Your task to perform on an android device: change the clock display to show seconds Image 0: 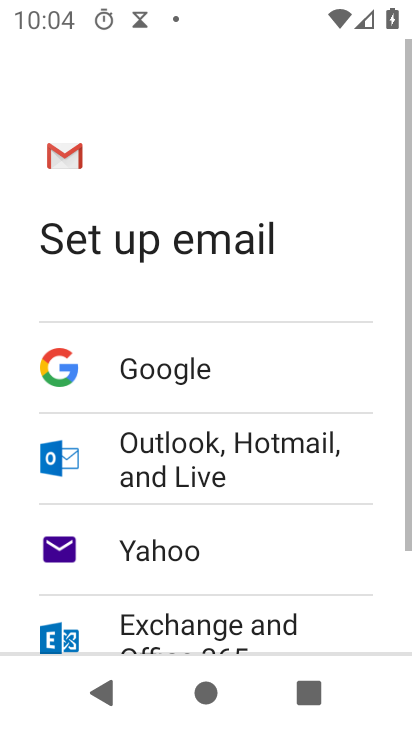
Step 0: press home button
Your task to perform on an android device: change the clock display to show seconds Image 1: 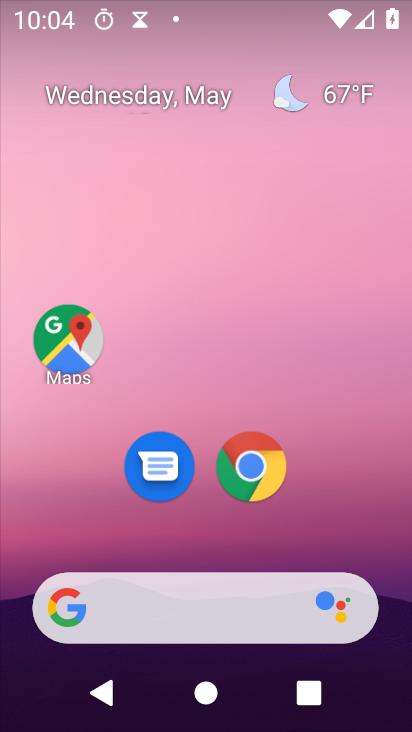
Step 1: drag from (294, 527) to (287, 11)
Your task to perform on an android device: change the clock display to show seconds Image 2: 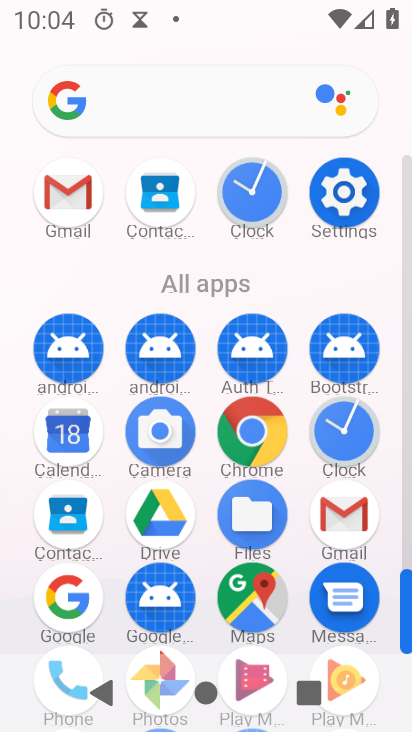
Step 2: click (259, 199)
Your task to perform on an android device: change the clock display to show seconds Image 3: 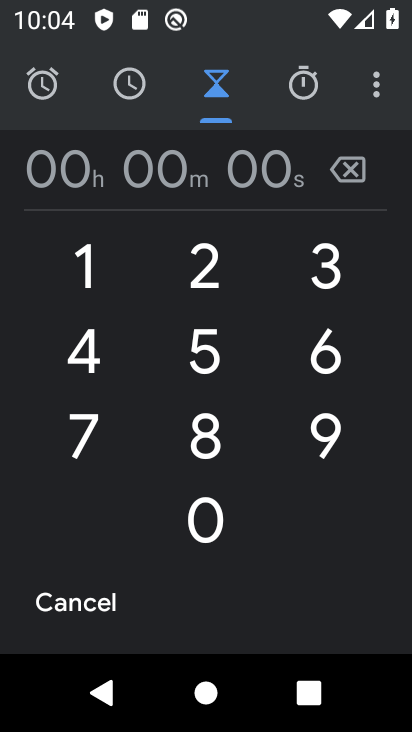
Step 3: click (374, 90)
Your task to perform on an android device: change the clock display to show seconds Image 4: 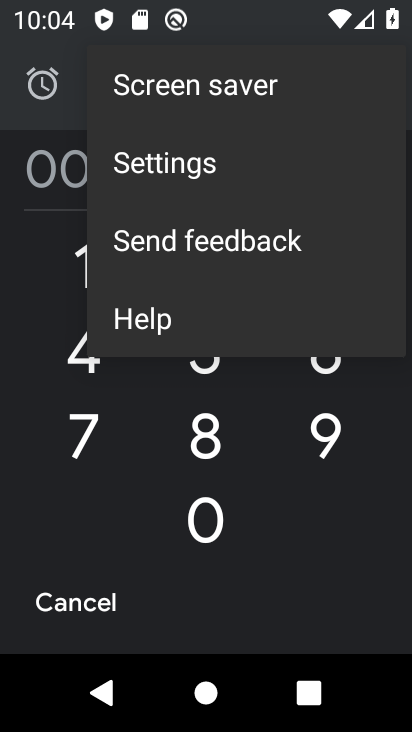
Step 4: click (129, 174)
Your task to perform on an android device: change the clock display to show seconds Image 5: 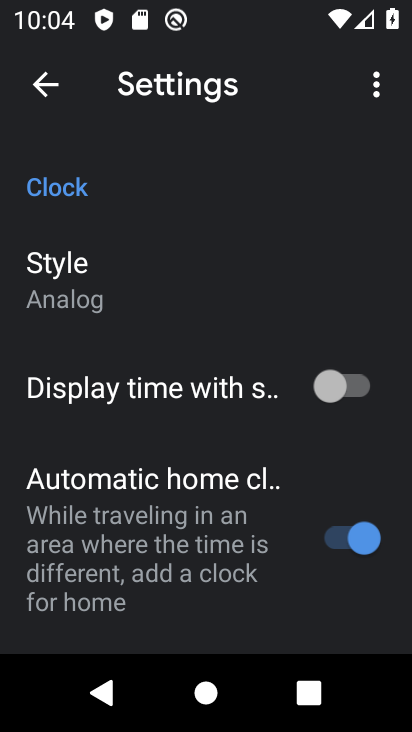
Step 5: drag from (176, 585) to (274, 165)
Your task to perform on an android device: change the clock display to show seconds Image 6: 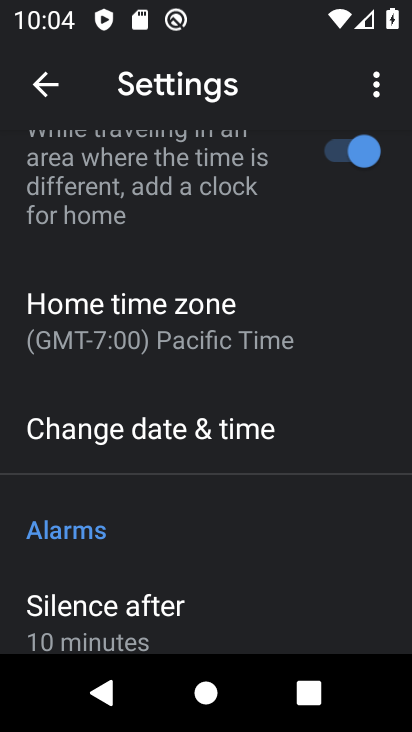
Step 6: drag from (269, 248) to (260, 509)
Your task to perform on an android device: change the clock display to show seconds Image 7: 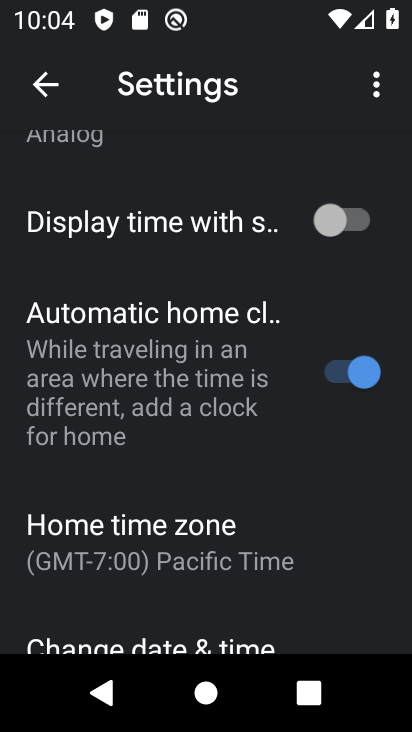
Step 7: click (338, 230)
Your task to perform on an android device: change the clock display to show seconds Image 8: 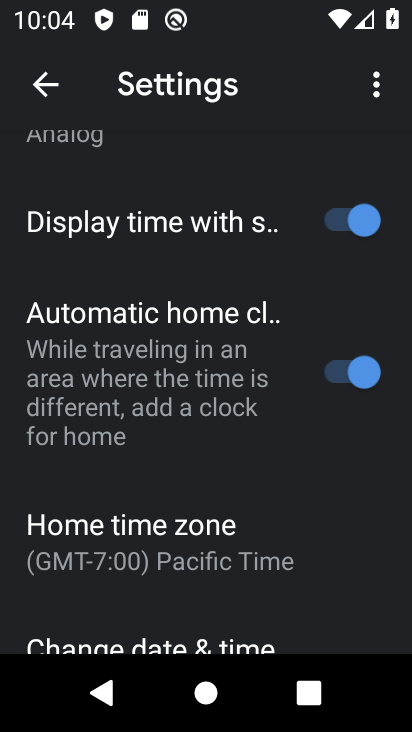
Step 8: task complete